Your task to perform on an android device: Is it going to rain today? Image 0: 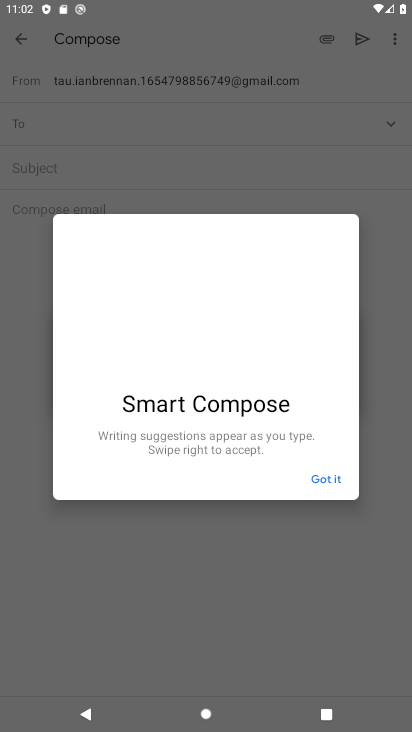
Step 0: press home button
Your task to perform on an android device: Is it going to rain today? Image 1: 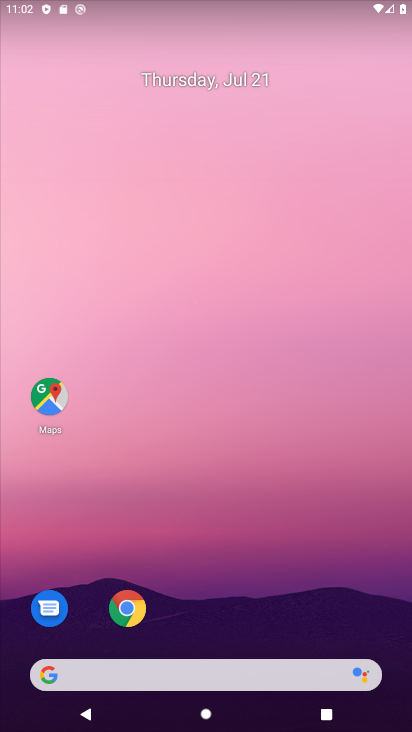
Step 1: drag from (308, 620) to (279, 130)
Your task to perform on an android device: Is it going to rain today? Image 2: 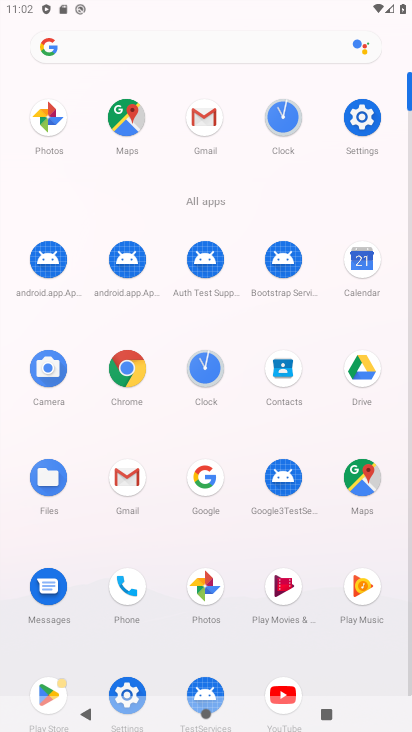
Step 2: click (212, 473)
Your task to perform on an android device: Is it going to rain today? Image 3: 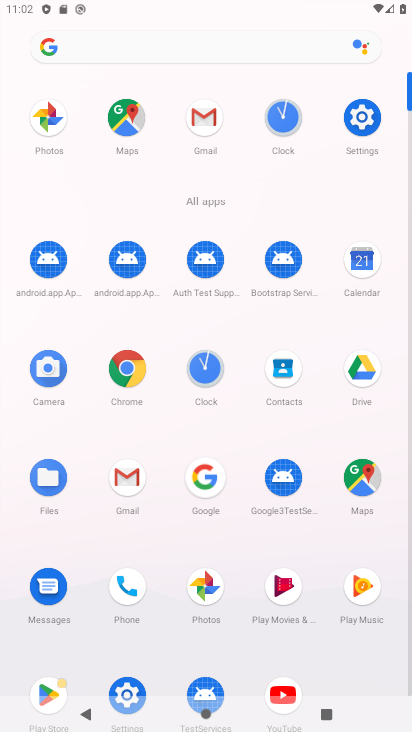
Step 3: click (213, 478)
Your task to perform on an android device: Is it going to rain today? Image 4: 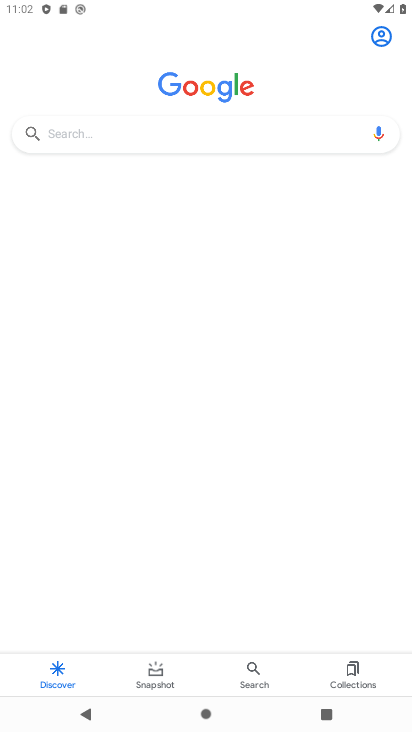
Step 4: click (165, 130)
Your task to perform on an android device: Is it going to rain today? Image 5: 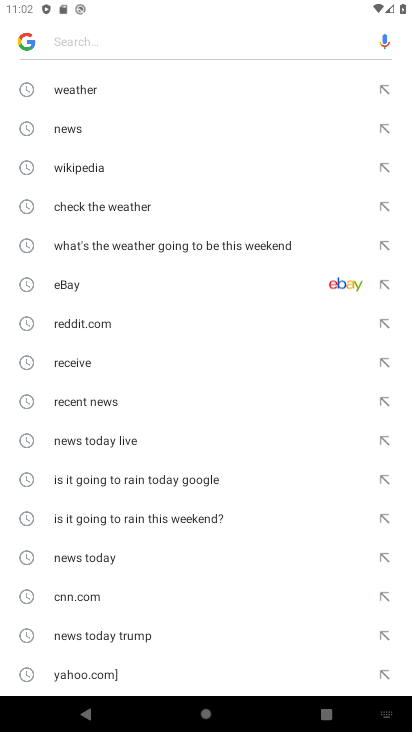
Step 5: click (77, 83)
Your task to perform on an android device: Is it going to rain today? Image 6: 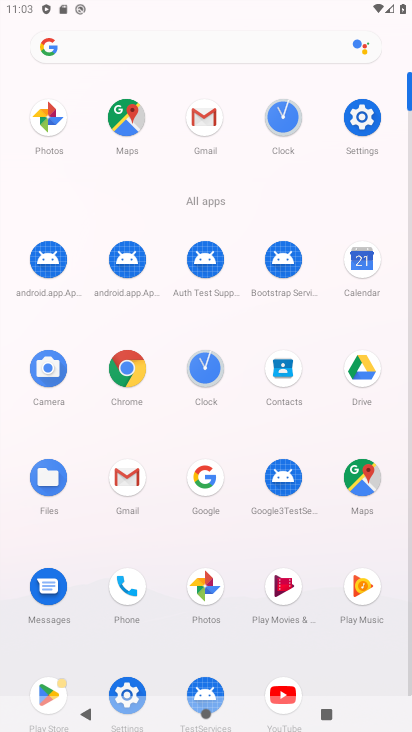
Step 6: task complete